Your task to perform on an android device: Open Chrome and go to settings Image 0: 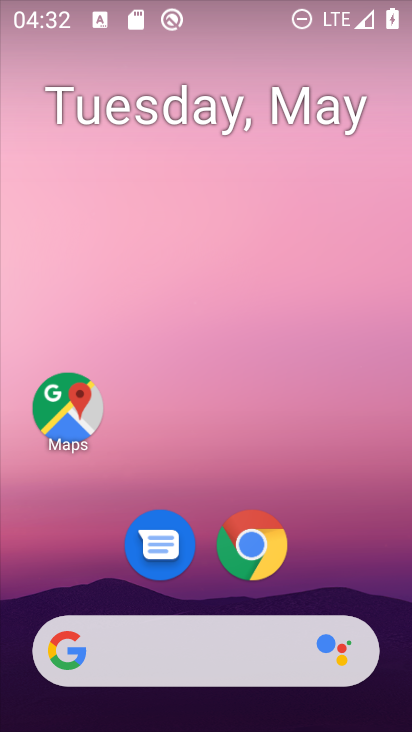
Step 0: click (257, 549)
Your task to perform on an android device: Open Chrome and go to settings Image 1: 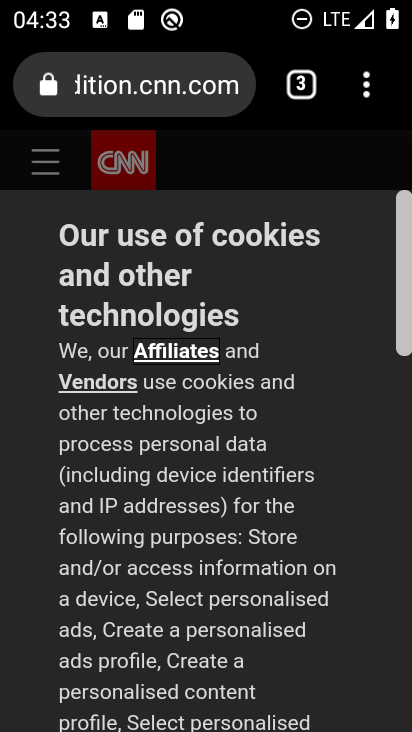
Step 1: click (362, 93)
Your task to perform on an android device: Open Chrome and go to settings Image 2: 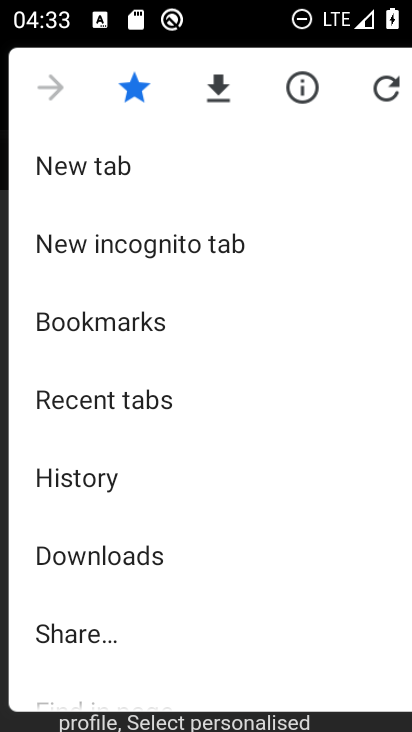
Step 2: drag from (241, 560) to (286, 172)
Your task to perform on an android device: Open Chrome and go to settings Image 3: 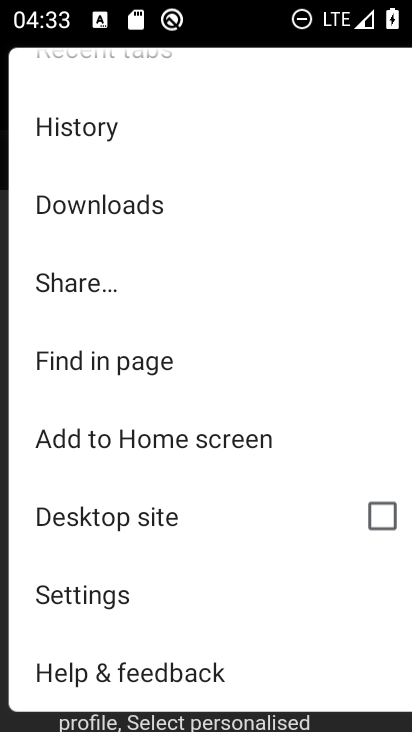
Step 3: click (71, 593)
Your task to perform on an android device: Open Chrome and go to settings Image 4: 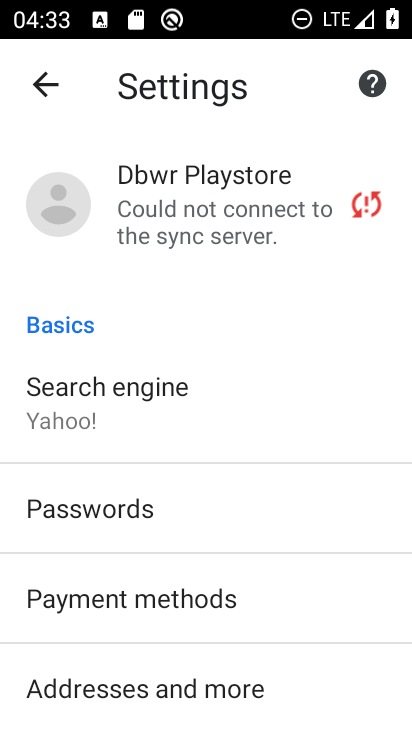
Step 4: task complete